Your task to perform on an android device: Open Wikipedia Image 0: 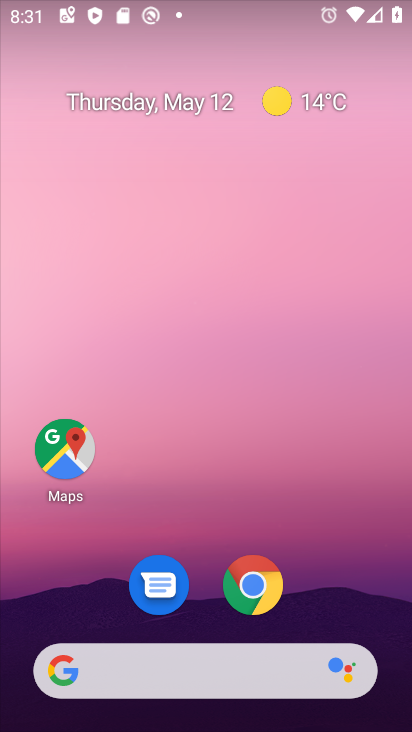
Step 0: click (258, 586)
Your task to perform on an android device: Open Wikipedia Image 1: 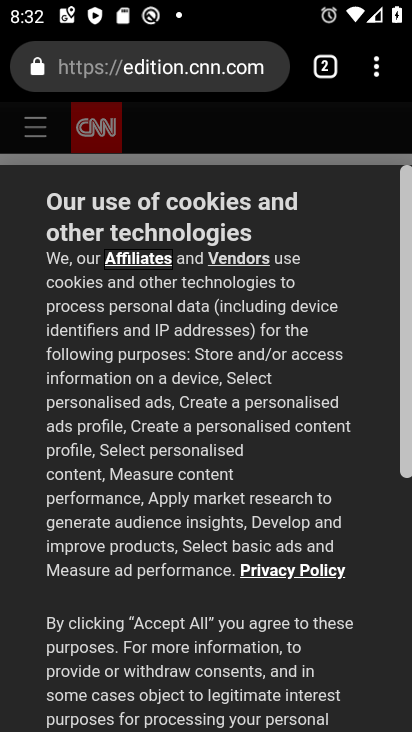
Step 1: click (375, 71)
Your task to perform on an android device: Open Wikipedia Image 2: 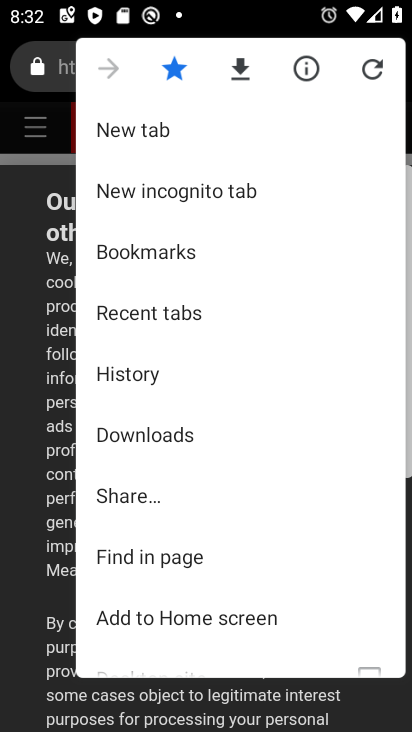
Step 2: click (314, 126)
Your task to perform on an android device: Open Wikipedia Image 3: 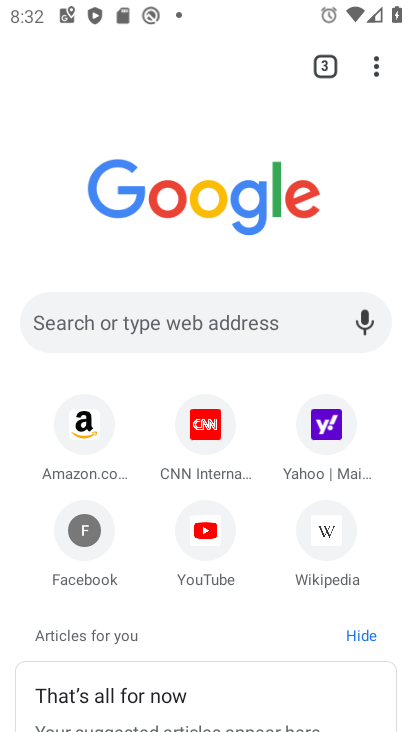
Step 3: click (329, 521)
Your task to perform on an android device: Open Wikipedia Image 4: 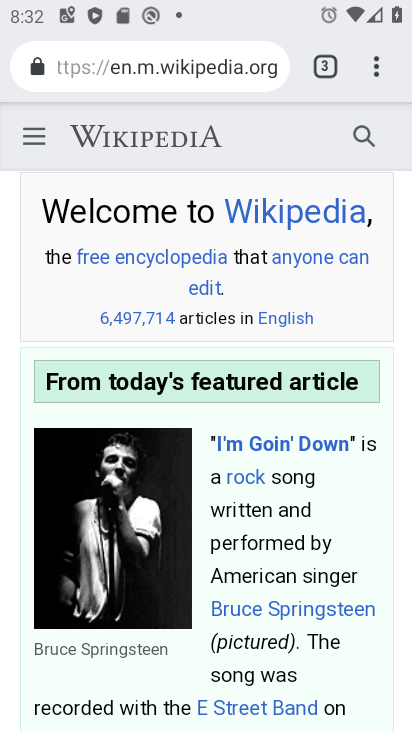
Step 4: task complete